Your task to perform on an android device: turn off sleep mode Image 0: 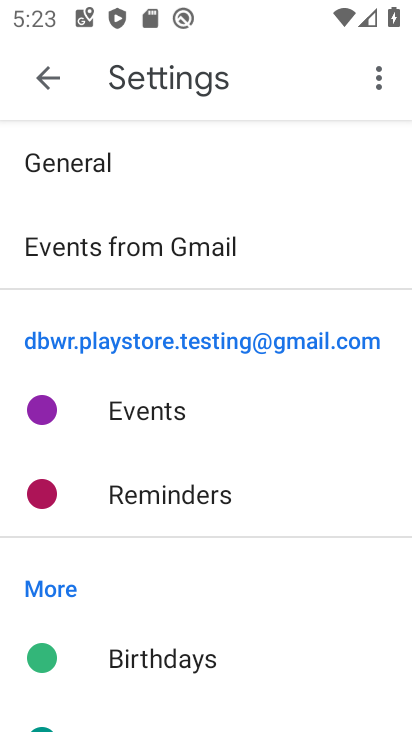
Step 0: press home button
Your task to perform on an android device: turn off sleep mode Image 1: 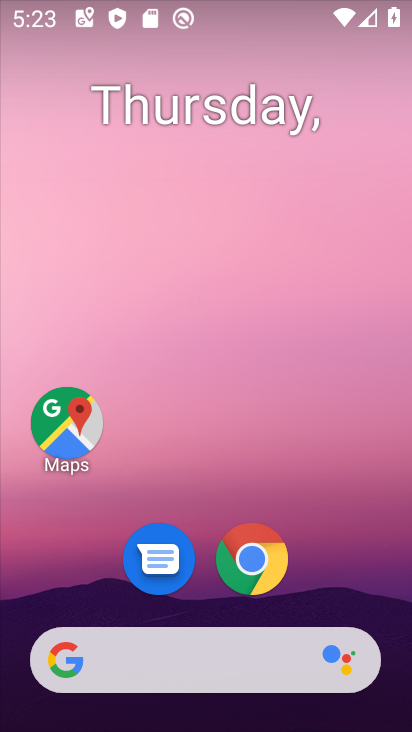
Step 1: drag from (207, 501) to (181, 2)
Your task to perform on an android device: turn off sleep mode Image 2: 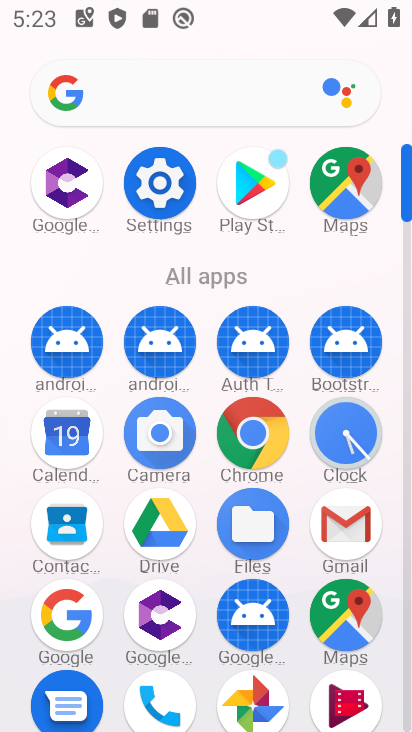
Step 2: click (162, 192)
Your task to perform on an android device: turn off sleep mode Image 3: 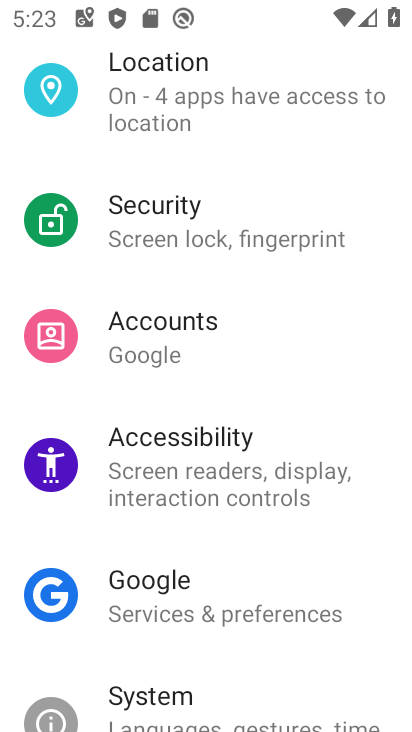
Step 3: drag from (188, 134) to (164, 494)
Your task to perform on an android device: turn off sleep mode Image 4: 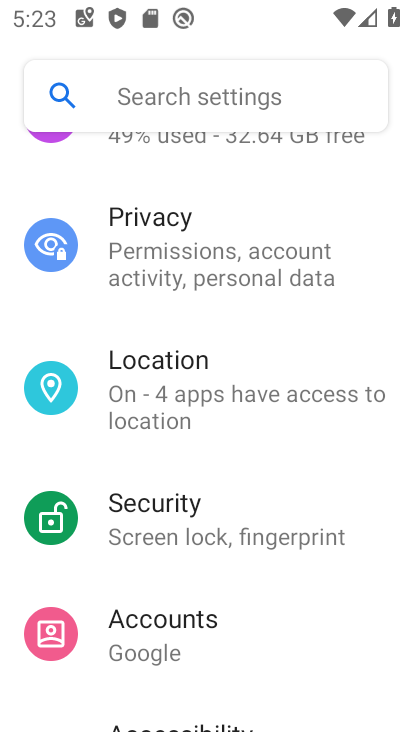
Step 4: drag from (182, 139) to (180, 380)
Your task to perform on an android device: turn off sleep mode Image 5: 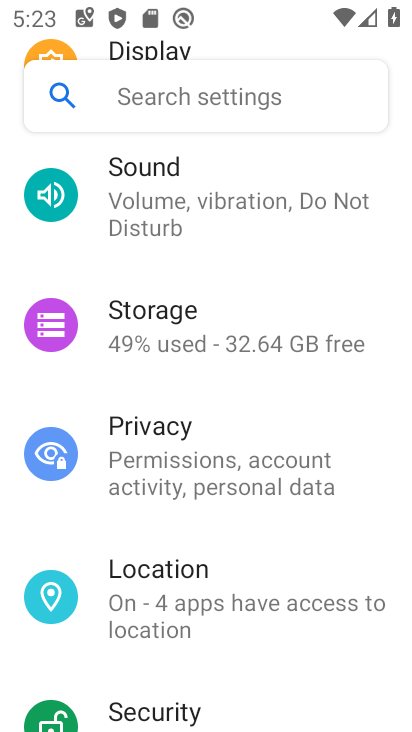
Step 5: click (192, 104)
Your task to perform on an android device: turn off sleep mode Image 6: 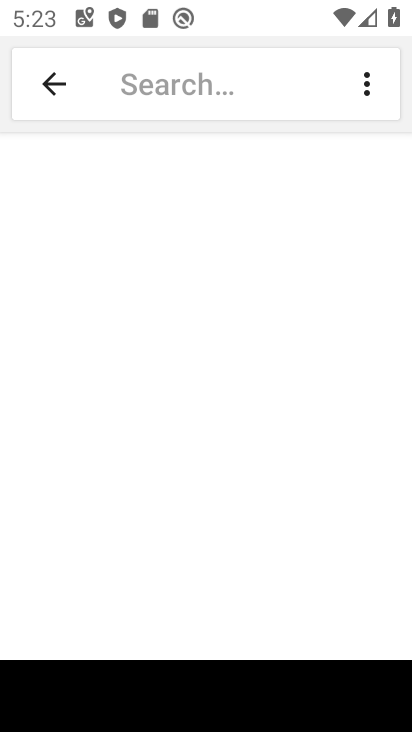
Step 6: type "sleep mode"
Your task to perform on an android device: turn off sleep mode Image 7: 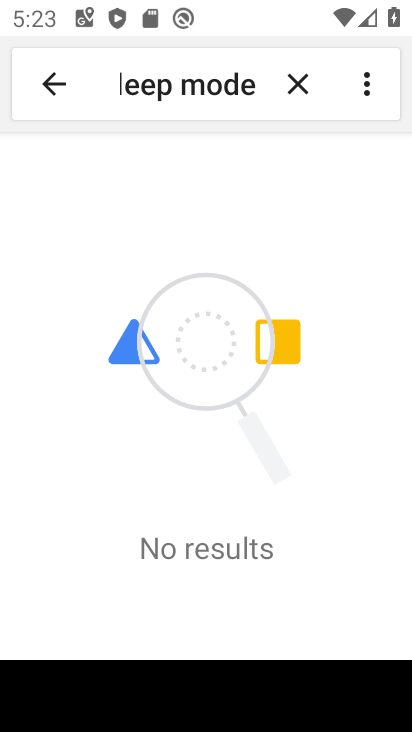
Step 7: task complete